Your task to perform on an android device: open app "Roku - Official Remote Control" Image 0: 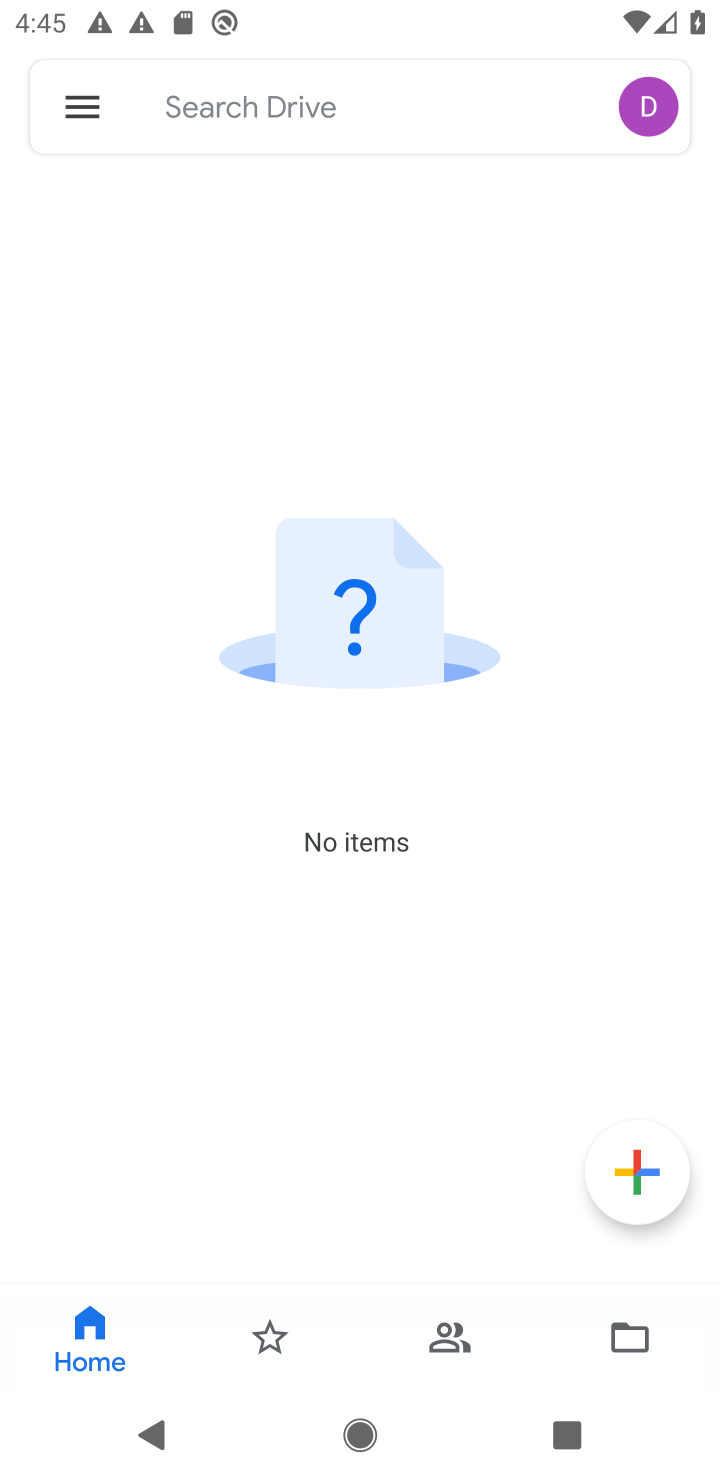
Step 0: press home button
Your task to perform on an android device: open app "Roku - Official Remote Control" Image 1: 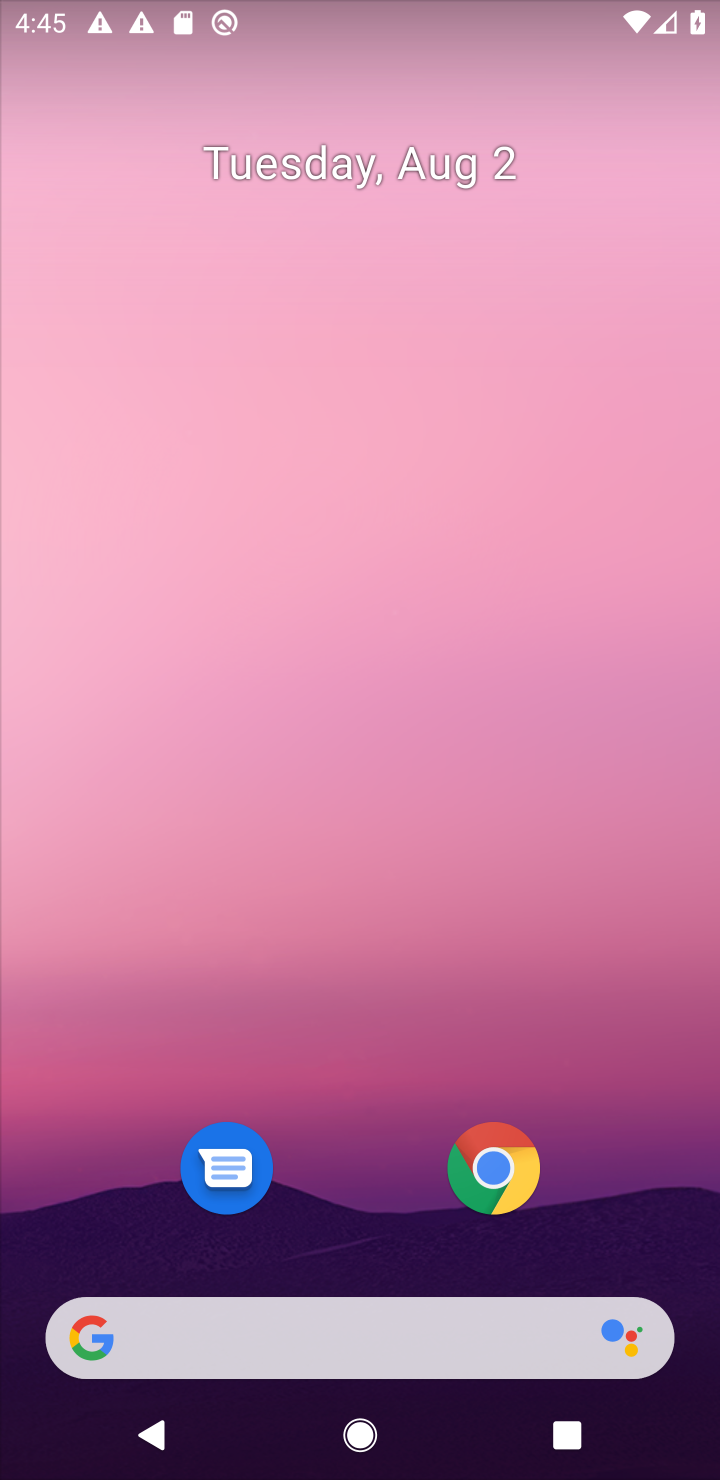
Step 1: drag from (347, 1014) to (351, 465)
Your task to perform on an android device: open app "Roku - Official Remote Control" Image 2: 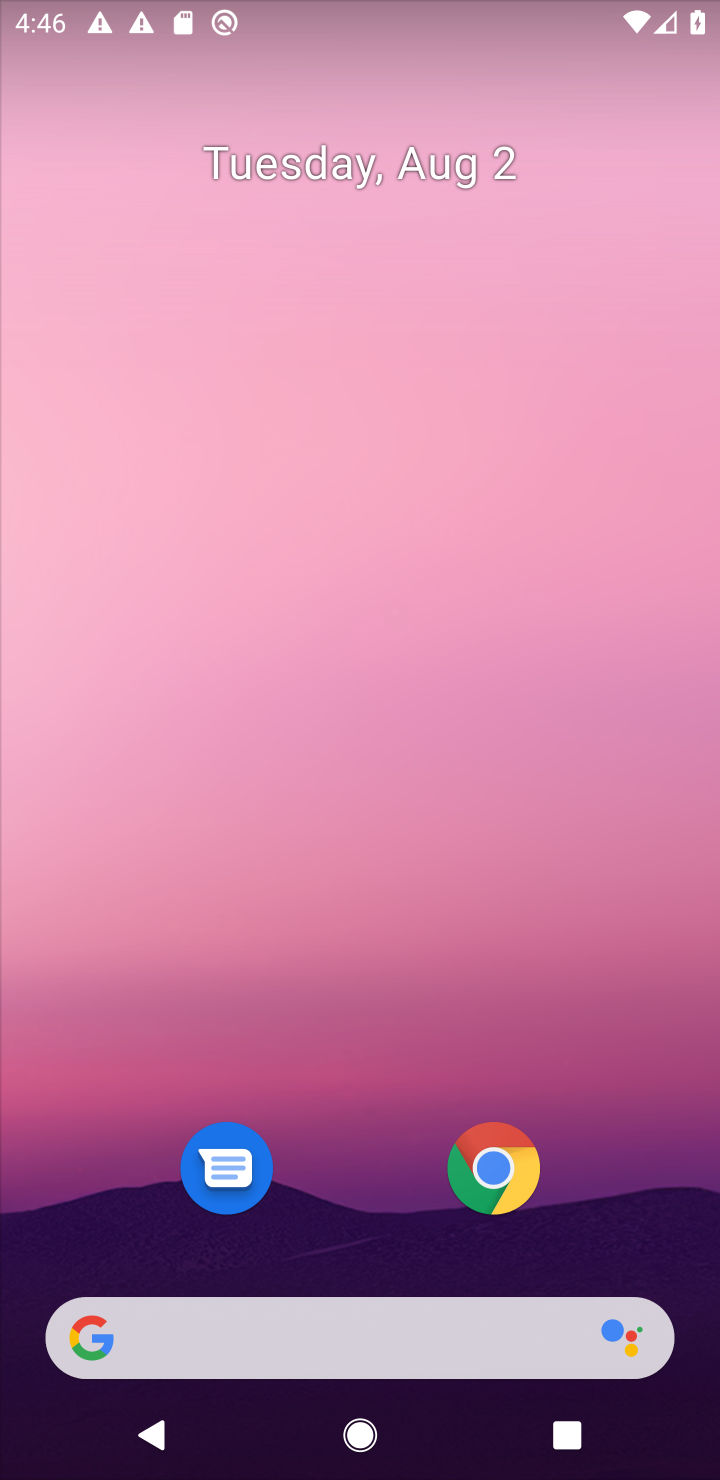
Step 2: drag from (297, 1248) to (278, 28)
Your task to perform on an android device: open app "Roku - Official Remote Control" Image 3: 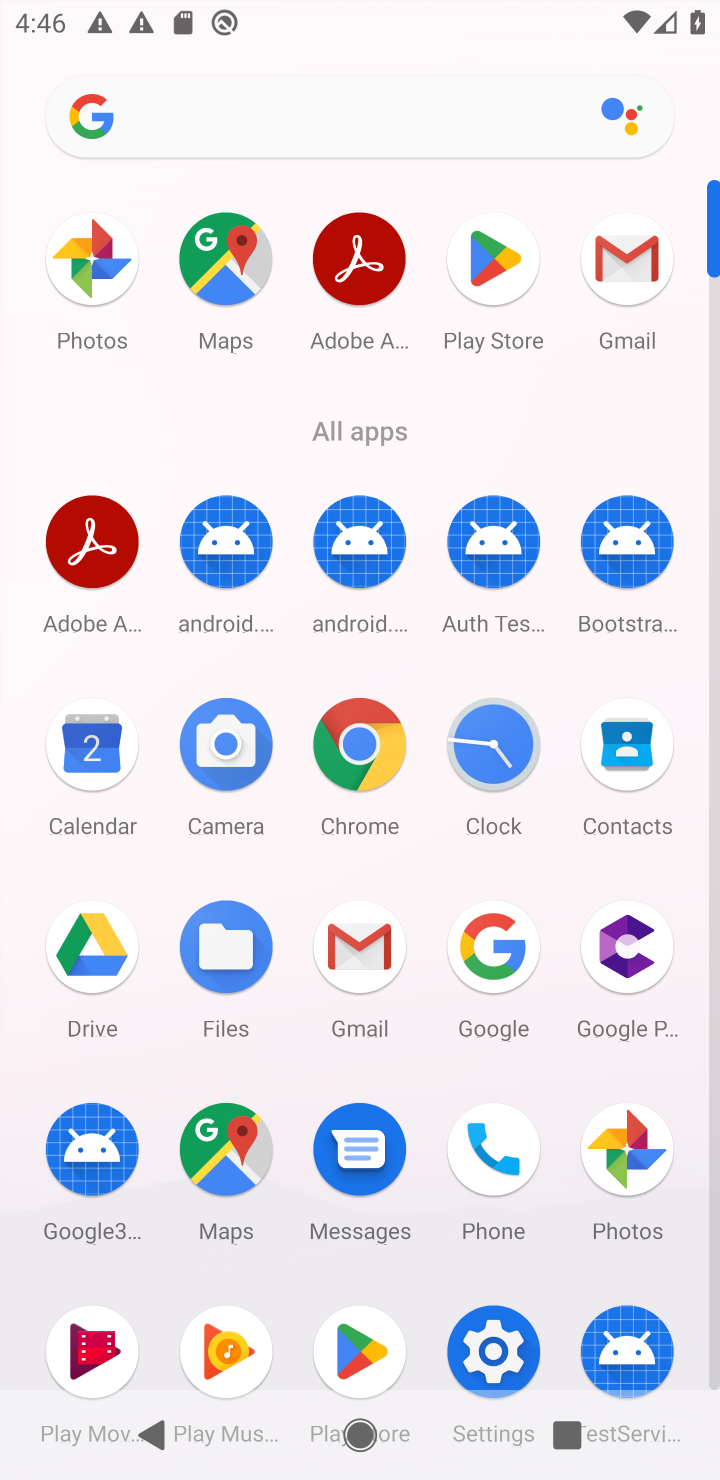
Step 3: click (493, 362)
Your task to perform on an android device: open app "Roku - Official Remote Control" Image 4: 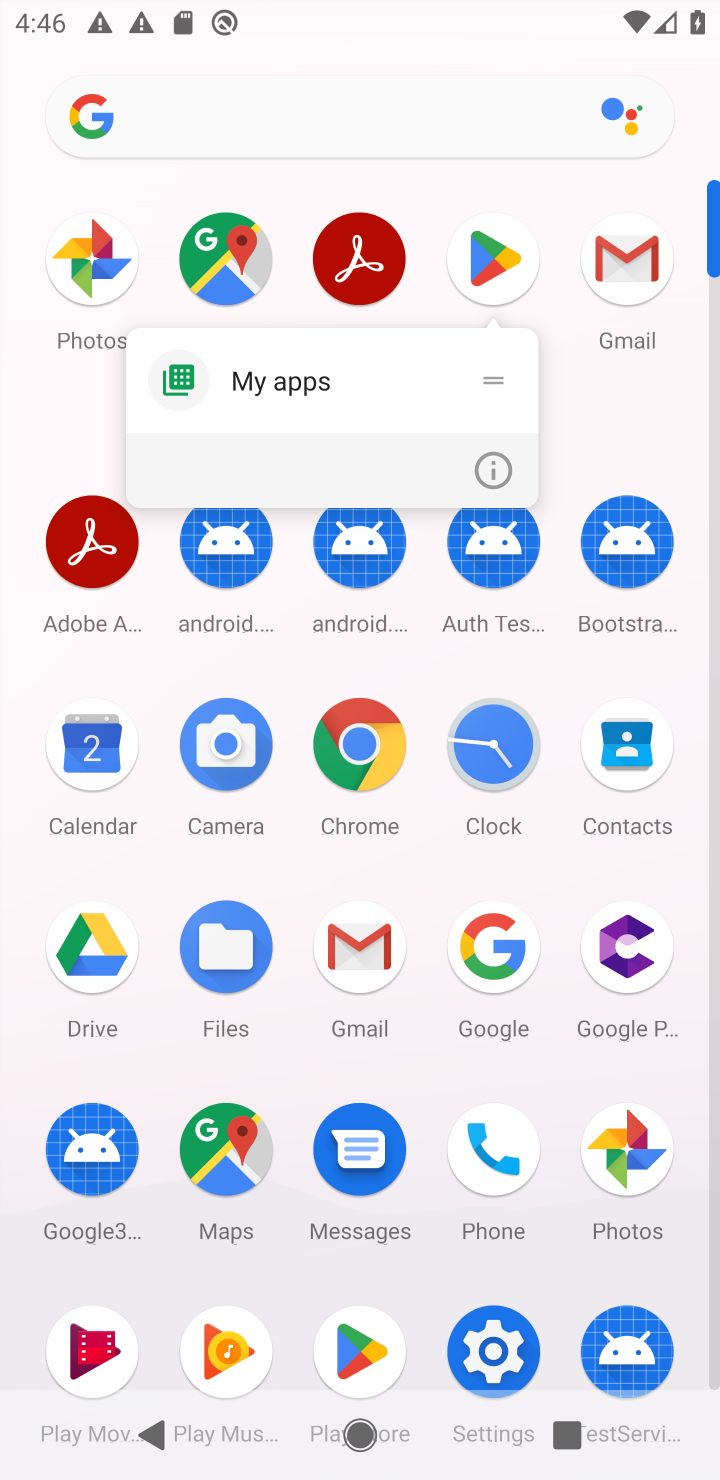
Step 4: click (500, 225)
Your task to perform on an android device: open app "Roku - Official Remote Control" Image 5: 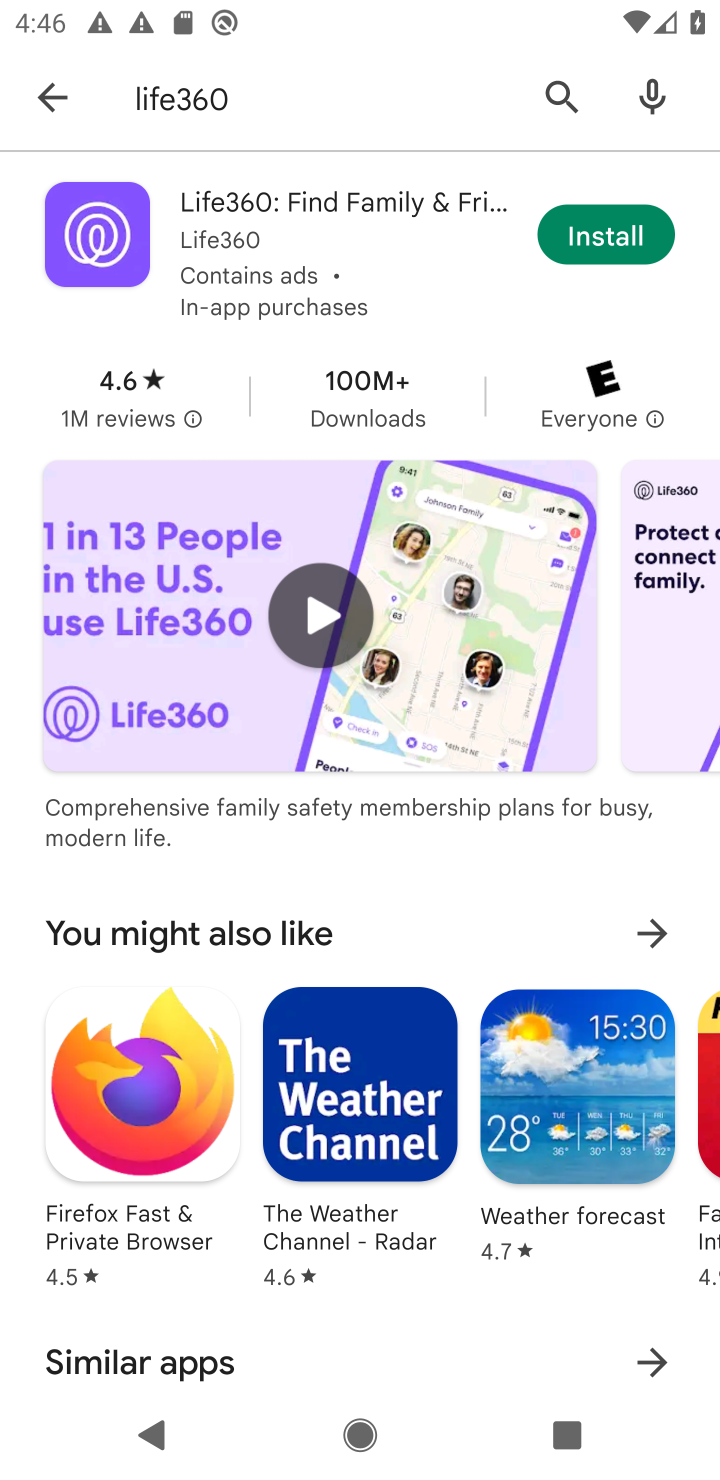
Step 5: click (247, 89)
Your task to perform on an android device: open app "Roku - Official Remote Control" Image 6: 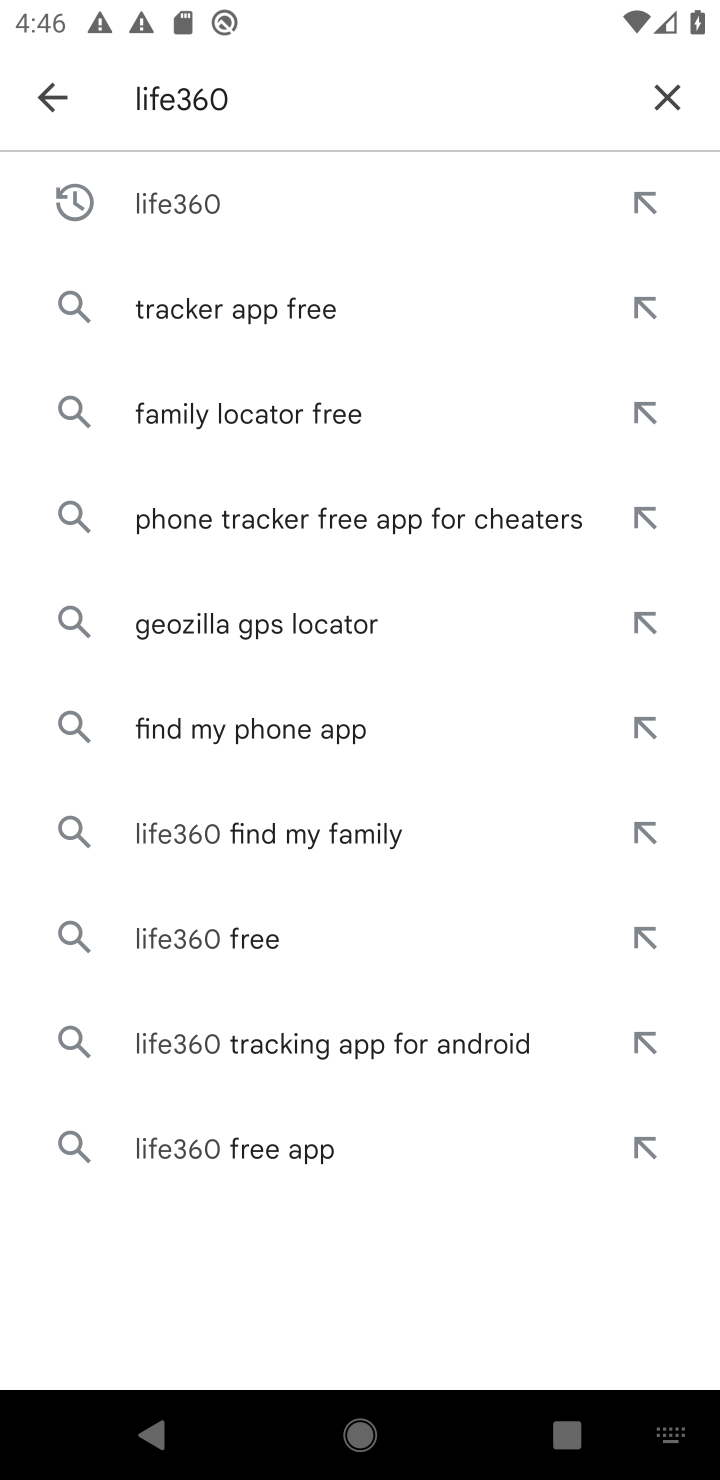
Step 6: click (661, 89)
Your task to perform on an android device: open app "Roku - Official Remote Control" Image 7: 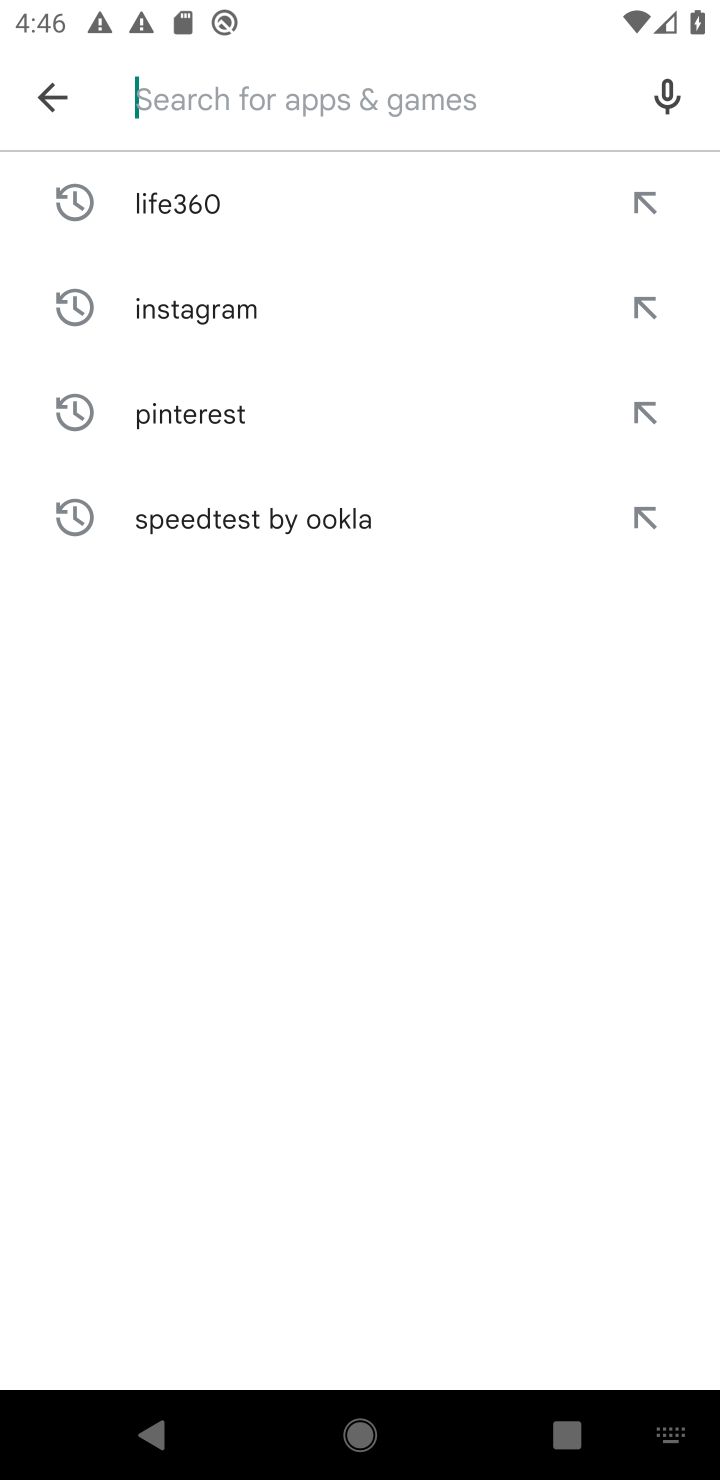
Step 7: type "roku"
Your task to perform on an android device: open app "Roku - Official Remote Control" Image 8: 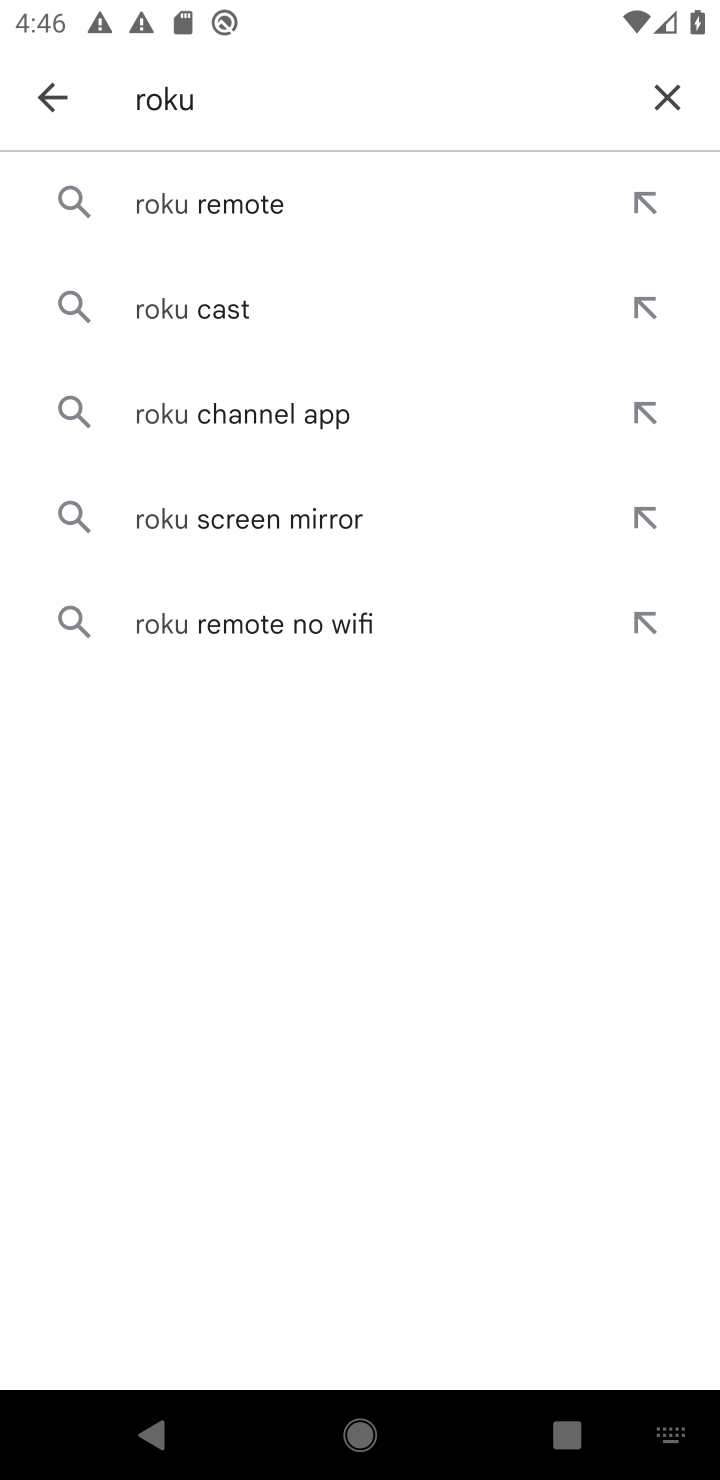
Step 8: click (300, 215)
Your task to perform on an android device: open app "Roku - Official Remote Control" Image 9: 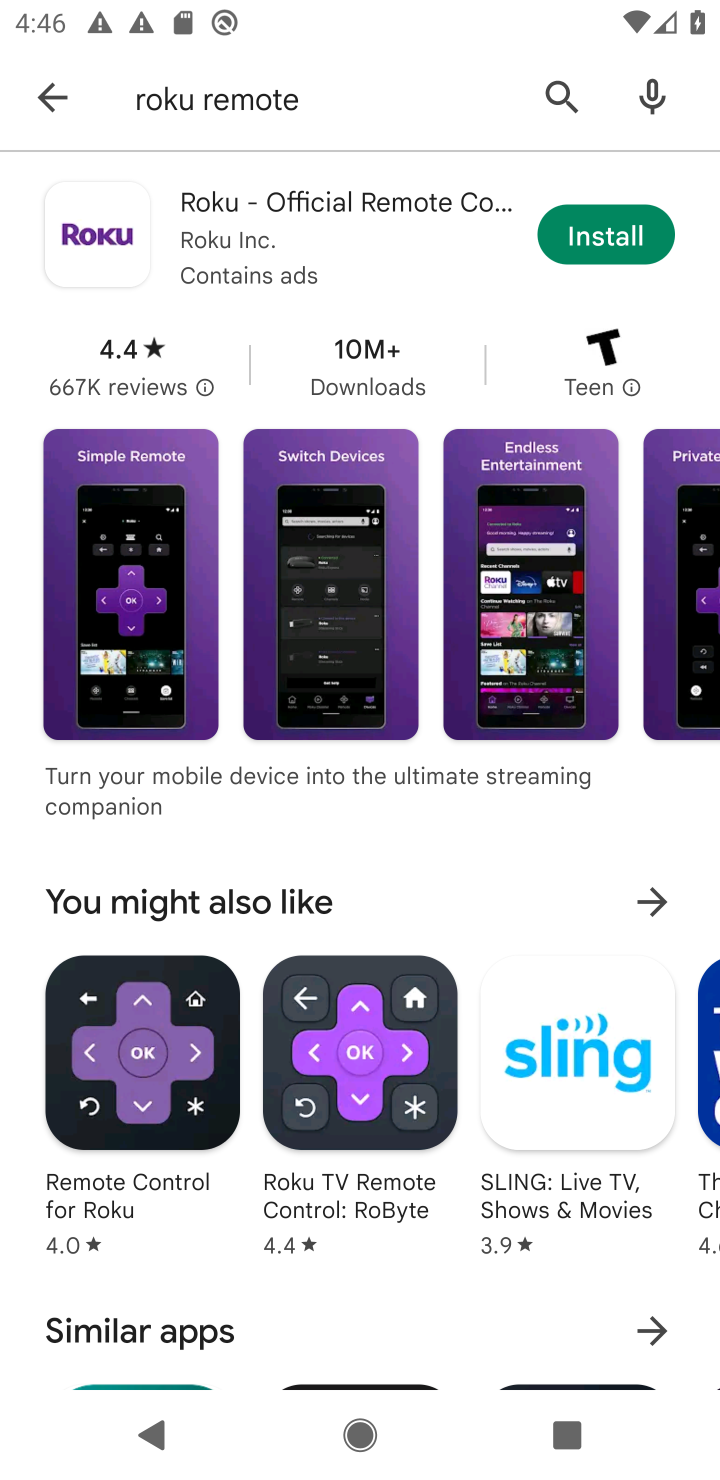
Step 9: task complete